Your task to perform on an android device: toggle show notifications on the lock screen Image 0: 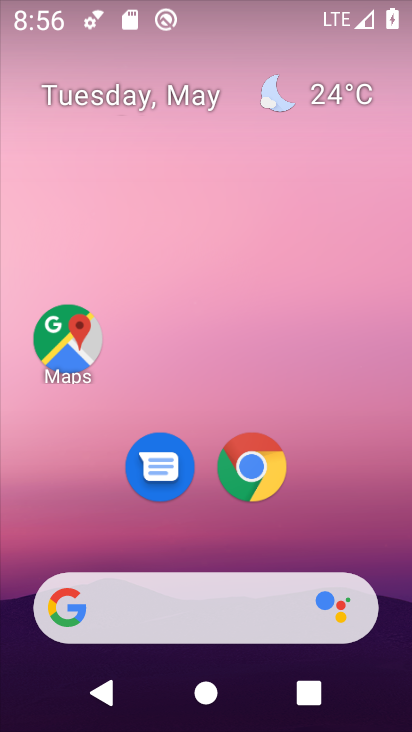
Step 0: drag from (397, 658) to (396, 295)
Your task to perform on an android device: toggle show notifications on the lock screen Image 1: 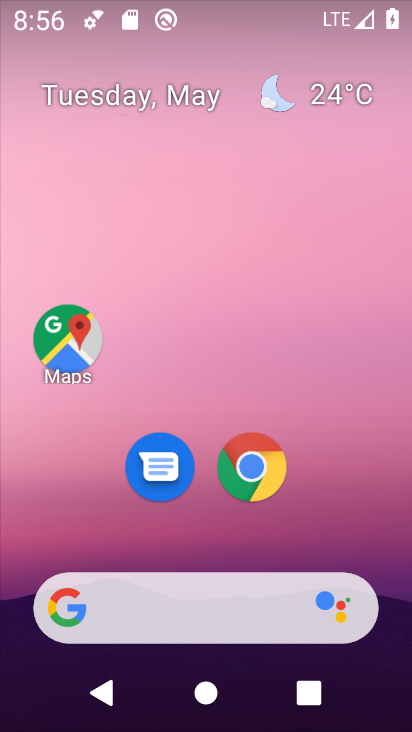
Step 1: drag from (398, 677) to (332, 231)
Your task to perform on an android device: toggle show notifications on the lock screen Image 2: 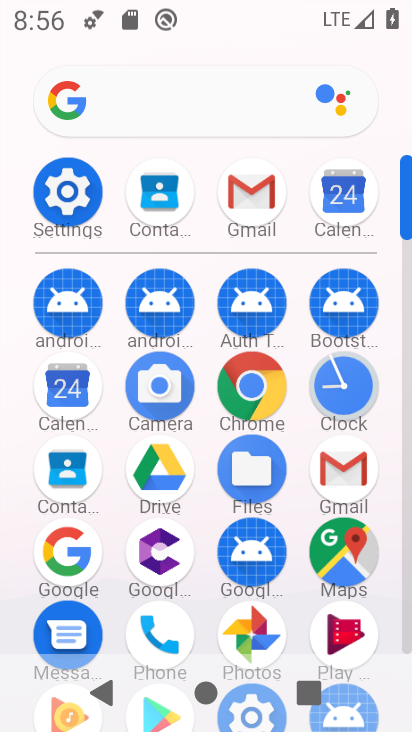
Step 2: click (79, 179)
Your task to perform on an android device: toggle show notifications on the lock screen Image 3: 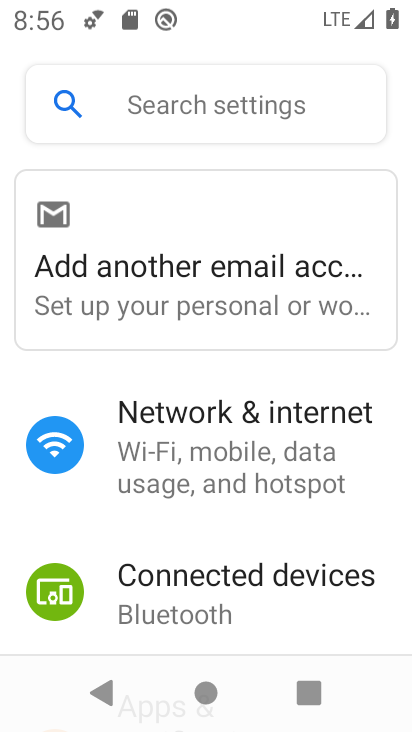
Step 3: drag from (200, 603) to (220, 284)
Your task to perform on an android device: toggle show notifications on the lock screen Image 4: 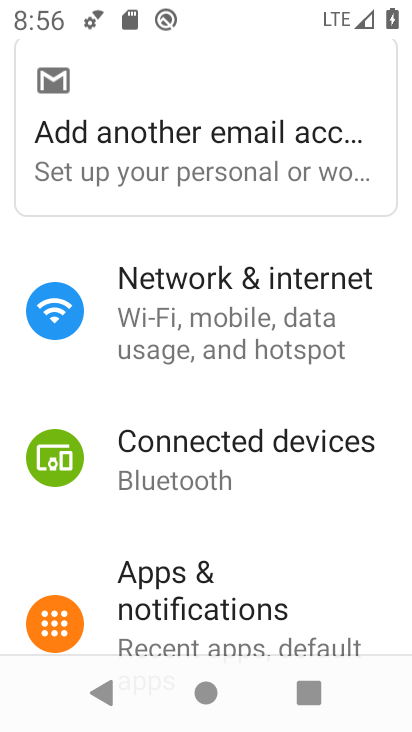
Step 4: drag from (281, 607) to (307, 354)
Your task to perform on an android device: toggle show notifications on the lock screen Image 5: 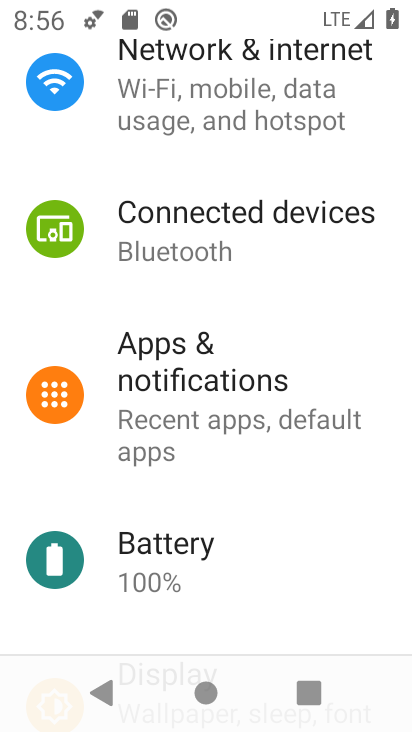
Step 5: click (189, 369)
Your task to perform on an android device: toggle show notifications on the lock screen Image 6: 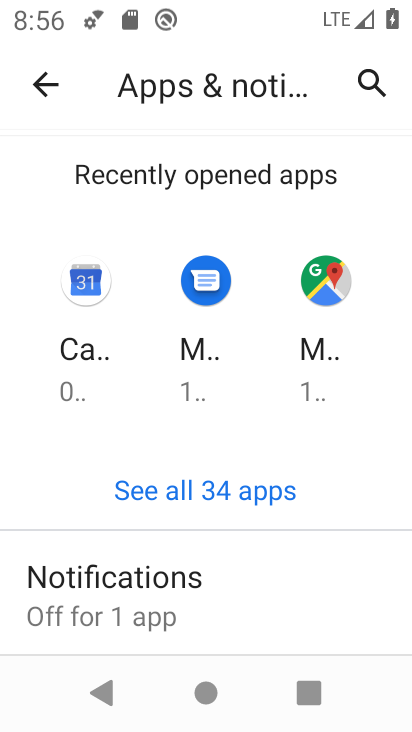
Step 6: drag from (244, 624) to (264, 247)
Your task to perform on an android device: toggle show notifications on the lock screen Image 7: 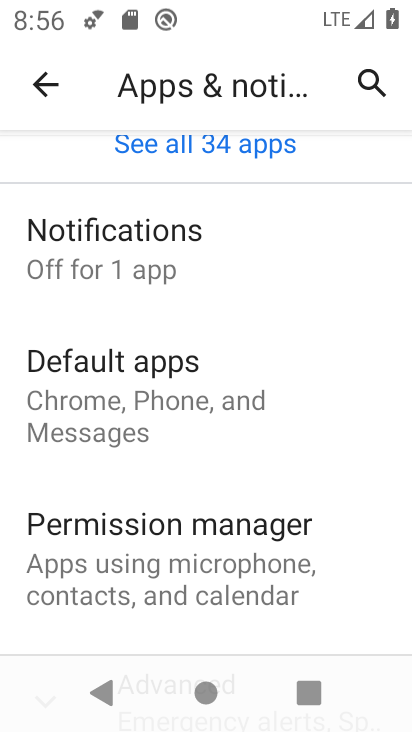
Step 7: click (99, 236)
Your task to perform on an android device: toggle show notifications on the lock screen Image 8: 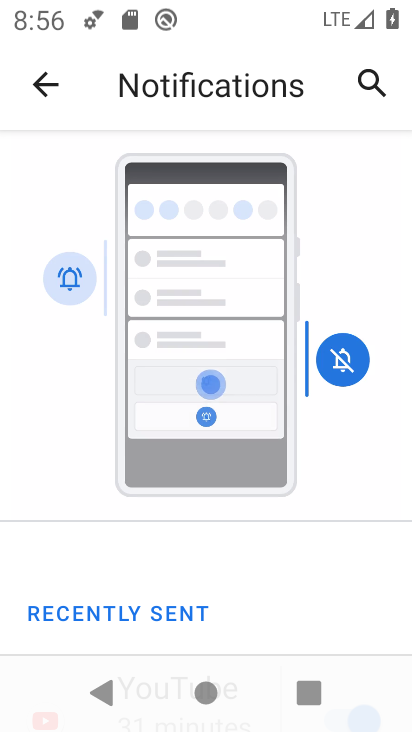
Step 8: drag from (298, 626) to (237, 224)
Your task to perform on an android device: toggle show notifications on the lock screen Image 9: 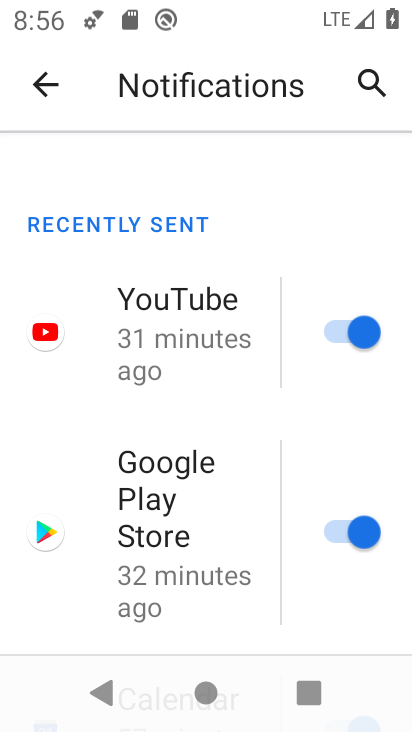
Step 9: drag from (258, 625) to (227, 236)
Your task to perform on an android device: toggle show notifications on the lock screen Image 10: 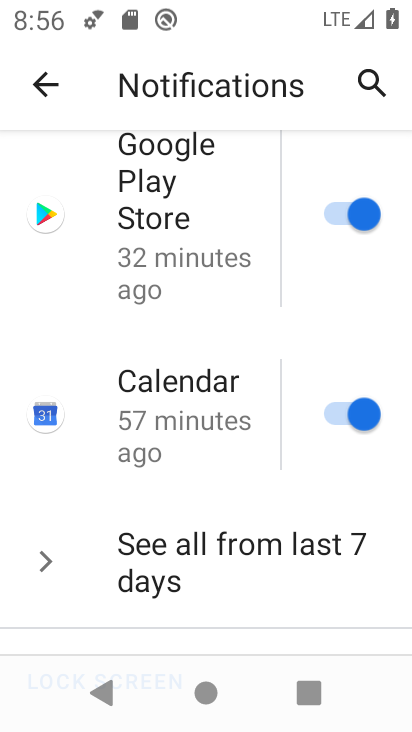
Step 10: drag from (255, 603) to (174, 172)
Your task to perform on an android device: toggle show notifications on the lock screen Image 11: 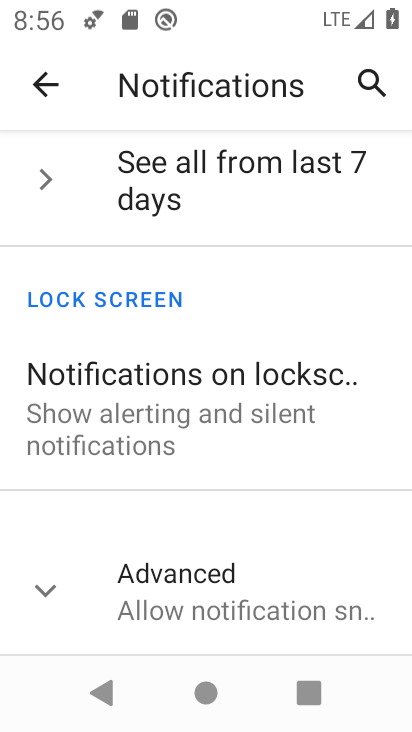
Step 11: click (137, 396)
Your task to perform on an android device: toggle show notifications on the lock screen Image 12: 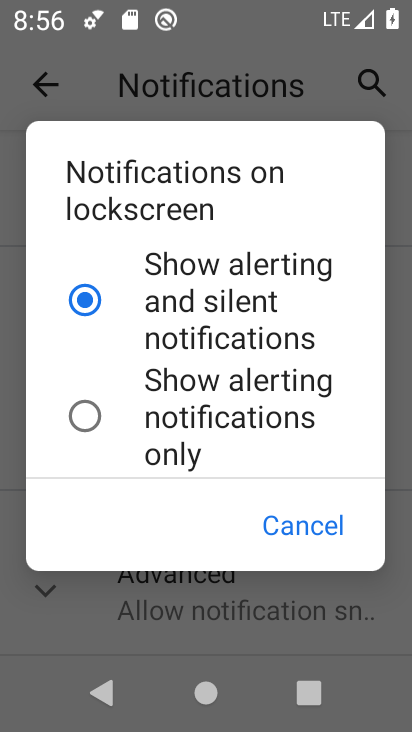
Step 12: drag from (142, 460) to (125, 217)
Your task to perform on an android device: toggle show notifications on the lock screen Image 13: 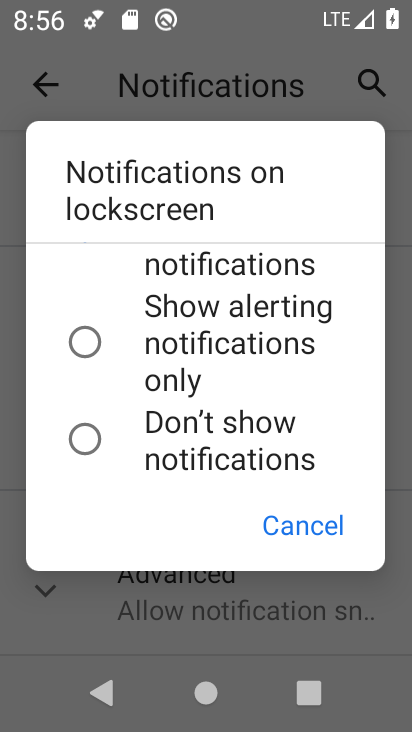
Step 13: click (83, 341)
Your task to perform on an android device: toggle show notifications on the lock screen Image 14: 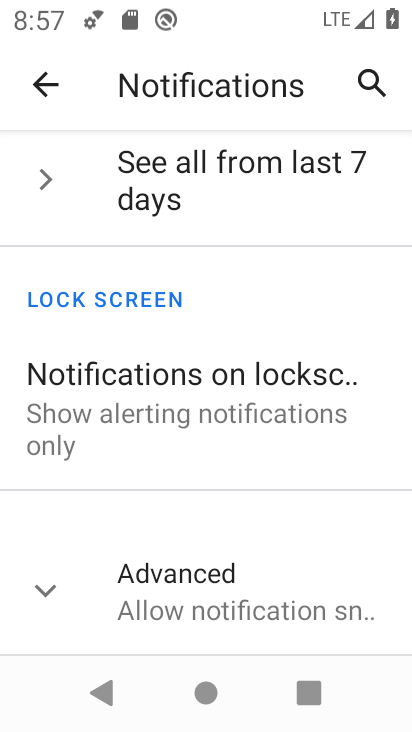
Step 14: task complete